Your task to perform on an android device: delete browsing data in the chrome app Image 0: 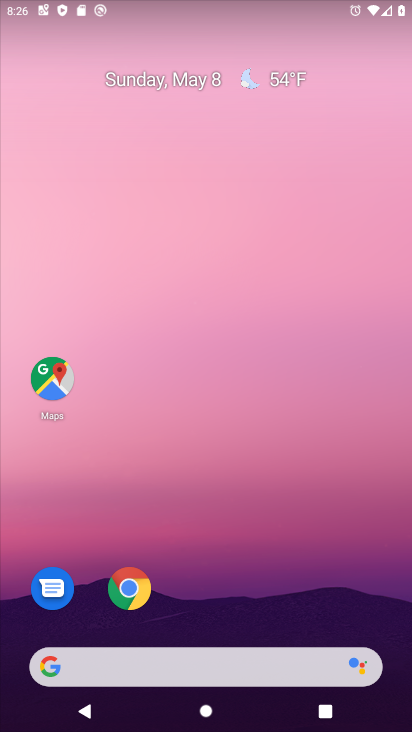
Step 0: click (143, 600)
Your task to perform on an android device: delete browsing data in the chrome app Image 1: 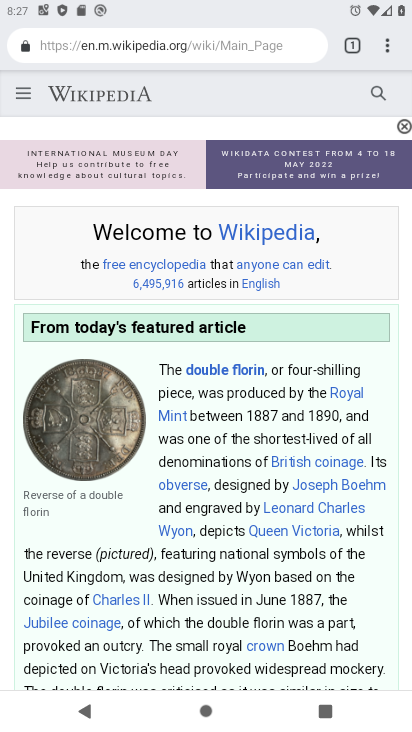
Step 1: click (391, 57)
Your task to perform on an android device: delete browsing data in the chrome app Image 2: 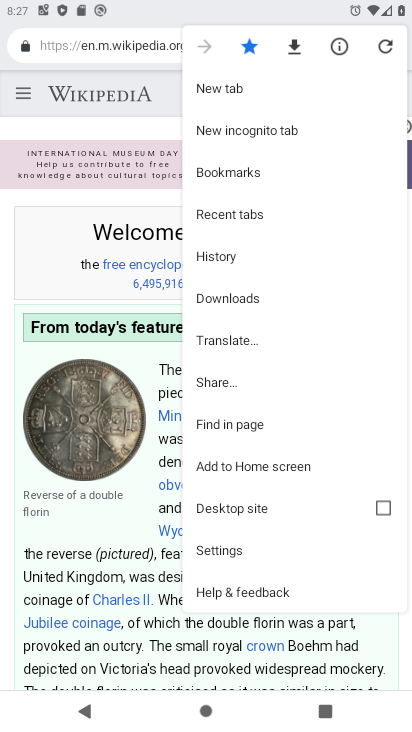
Step 2: click (228, 258)
Your task to perform on an android device: delete browsing data in the chrome app Image 3: 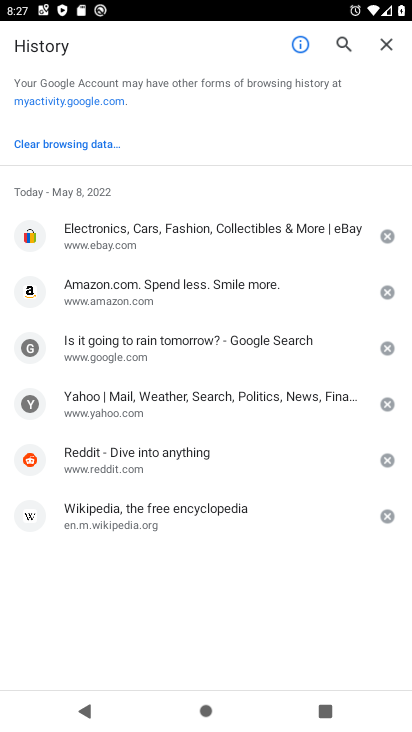
Step 3: click (69, 142)
Your task to perform on an android device: delete browsing data in the chrome app Image 4: 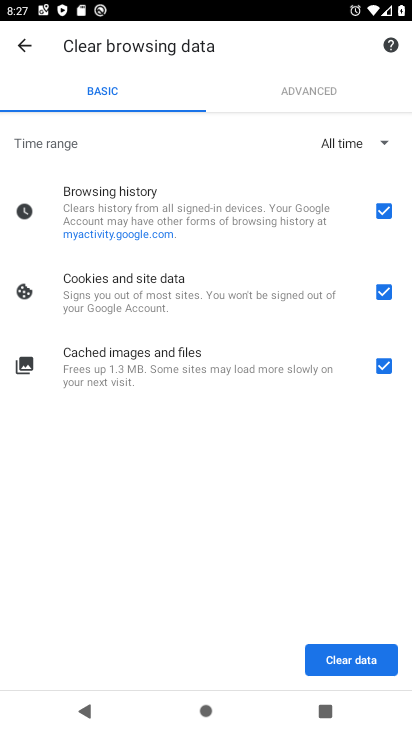
Step 4: click (338, 661)
Your task to perform on an android device: delete browsing data in the chrome app Image 5: 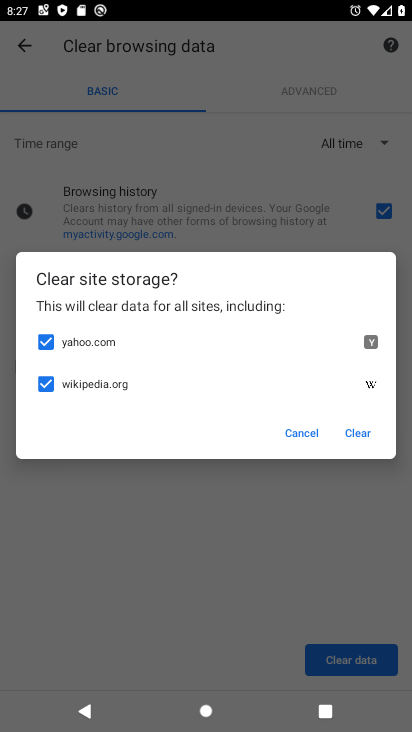
Step 5: click (363, 437)
Your task to perform on an android device: delete browsing data in the chrome app Image 6: 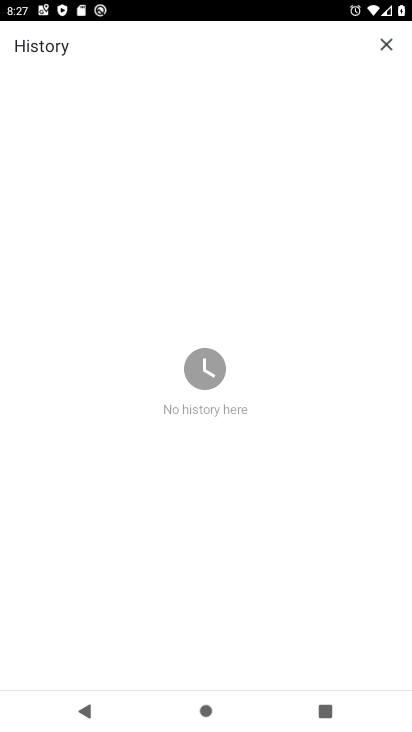
Step 6: task complete